Your task to perform on an android device: Search for the new nike air max 270 on Nike.com Image 0: 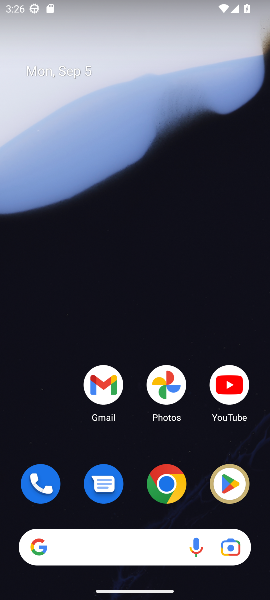
Step 0: click (158, 484)
Your task to perform on an android device: Search for the new nike air max 270 on Nike.com Image 1: 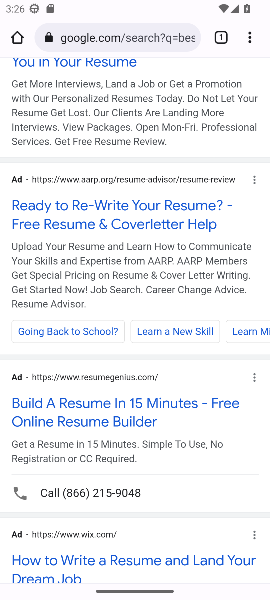
Step 1: click (150, 32)
Your task to perform on an android device: Search for the new nike air max 270 on Nike.com Image 2: 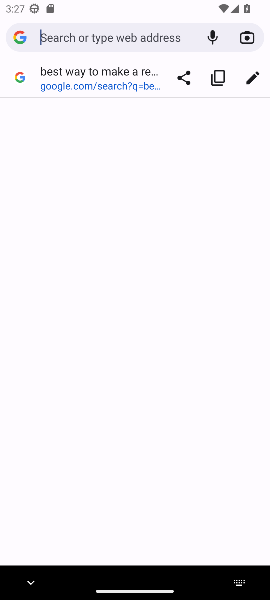
Step 2: type "Nike.com"
Your task to perform on an android device: Search for the new nike air max 270 on Nike.com Image 3: 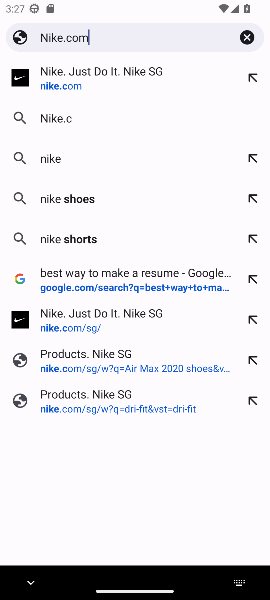
Step 3: press enter
Your task to perform on an android device: Search for the new nike air max 270 on Nike.com Image 4: 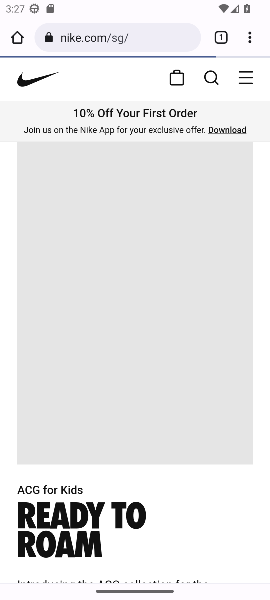
Step 4: click (204, 69)
Your task to perform on an android device: Search for the new nike air max 270 on Nike.com Image 5: 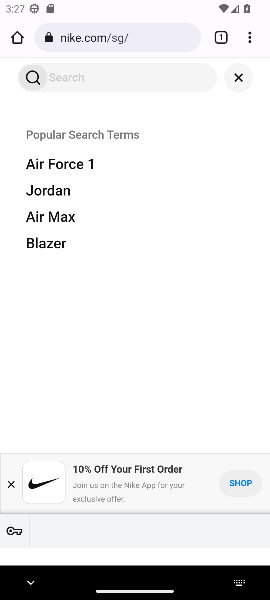
Step 5: type "air max 270"
Your task to perform on an android device: Search for the new nike air max 270 on Nike.com Image 6: 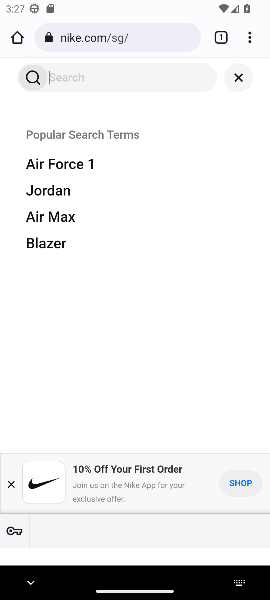
Step 6: press enter
Your task to perform on an android device: Search for the new nike air max 270 on Nike.com Image 7: 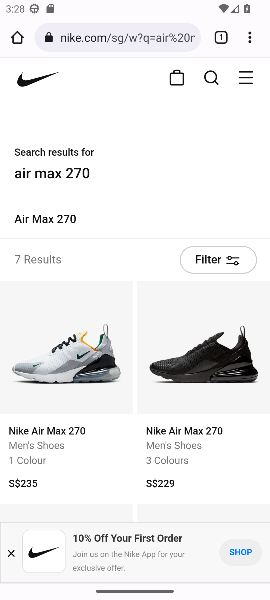
Step 7: task complete